Your task to perform on an android device: Open the Play Movies app and select the watchlist tab. Image 0: 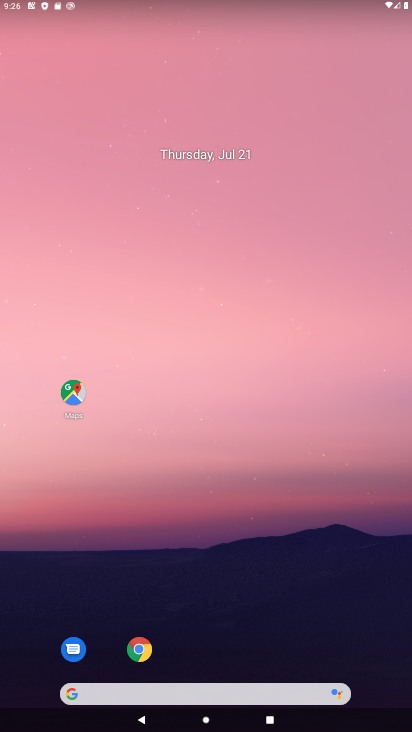
Step 0: drag from (276, 639) to (219, 171)
Your task to perform on an android device: Open the Play Movies app and select the watchlist tab. Image 1: 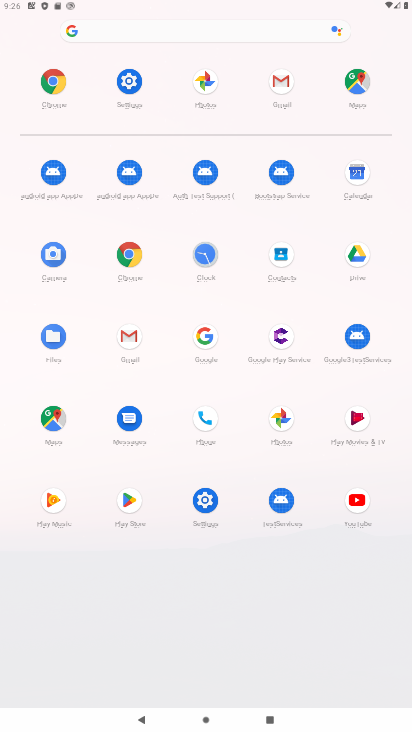
Step 1: click (372, 439)
Your task to perform on an android device: Open the Play Movies app and select the watchlist tab. Image 2: 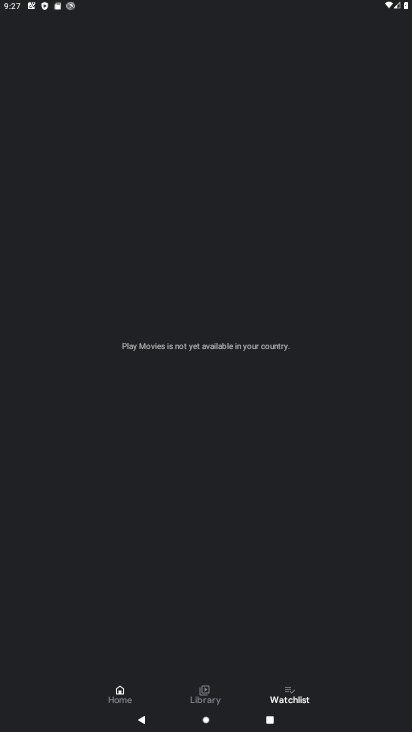
Step 2: task complete